Your task to perform on an android device: Open Google Chrome and open the bookmarks view Image 0: 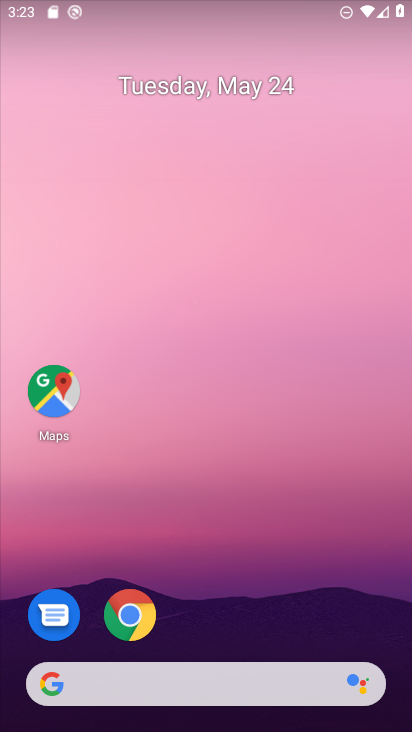
Step 0: drag from (174, 689) to (220, 87)
Your task to perform on an android device: Open Google Chrome and open the bookmarks view Image 1: 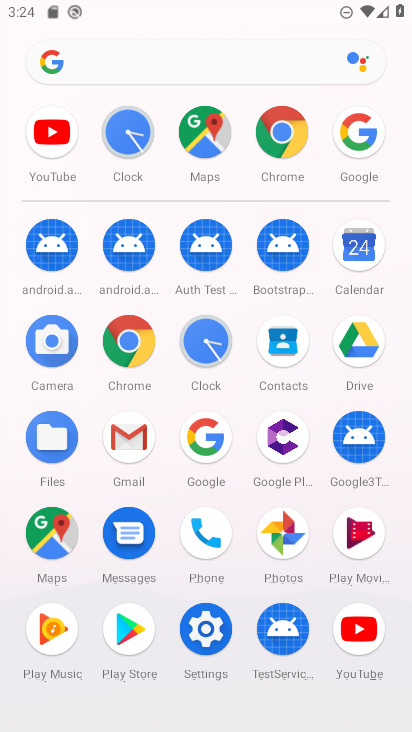
Step 1: drag from (289, 543) to (285, 199)
Your task to perform on an android device: Open Google Chrome and open the bookmarks view Image 2: 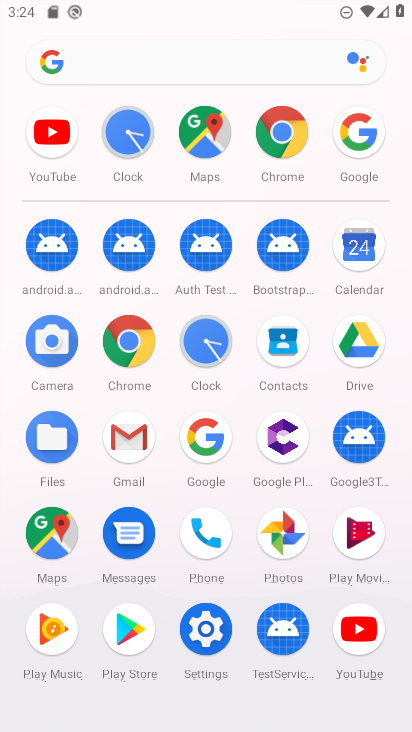
Step 2: click (294, 156)
Your task to perform on an android device: Open Google Chrome and open the bookmarks view Image 3: 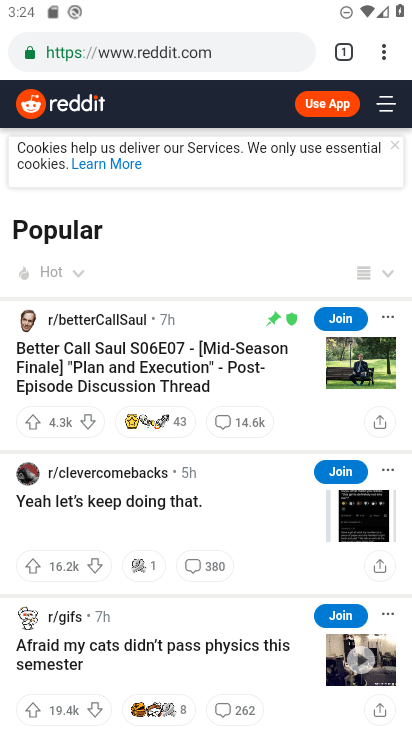
Step 3: click (391, 55)
Your task to perform on an android device: Open Google Chrome and open the bookmarks view Image 4: 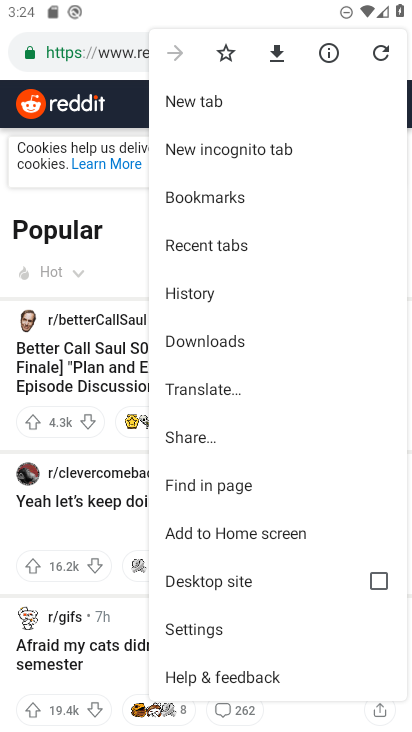
Step 4: drag from (263, 377) to (275, 313)
Your task to perform on an android device: Open Google Chrome and open the bookmarks view Image 5: 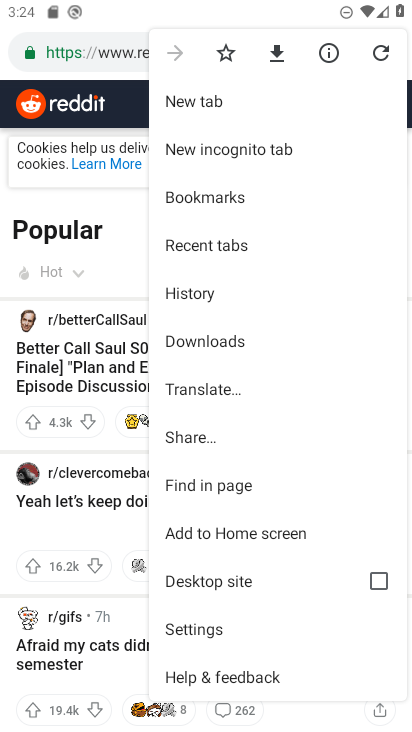
Step 5: click (222, 202)
Your task to perform on an android device: Open Google Chrome and open the bookmarks view Image 6: 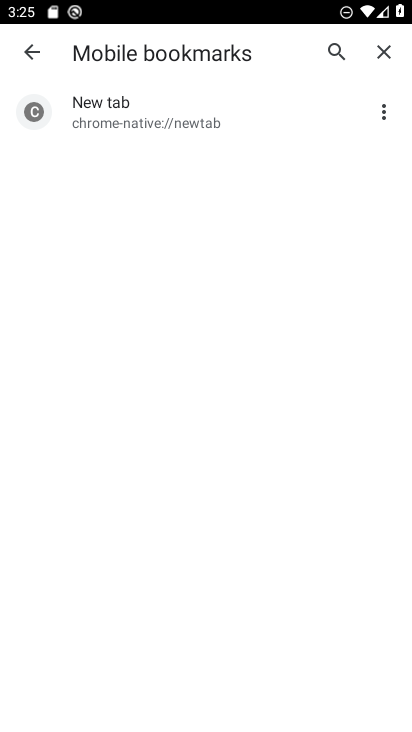
Step 6: task complete